Your task to perform on an android device: clear all cookies in the chrome app Image 0: 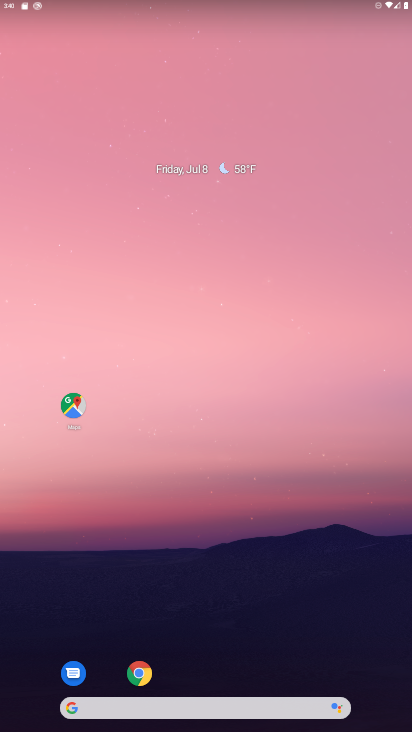
Step 0: click (138, 676)
Your task to perform on an android device: clear all cookies in the chrome app Image 1: 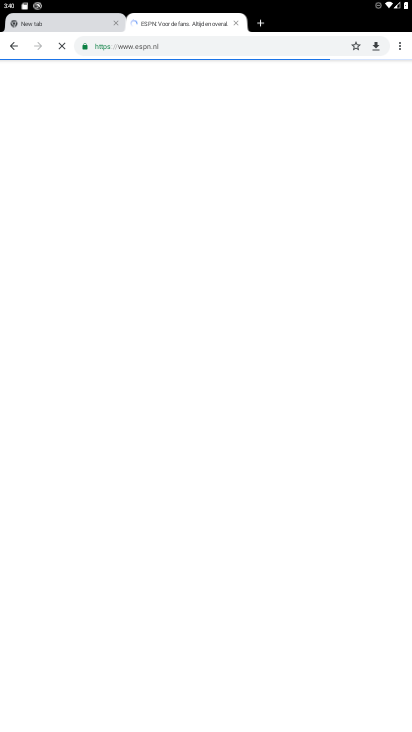
Step 1: click (399, 49)
Your task to perform on an android device: clear all cookies in the chrome app Image 2: 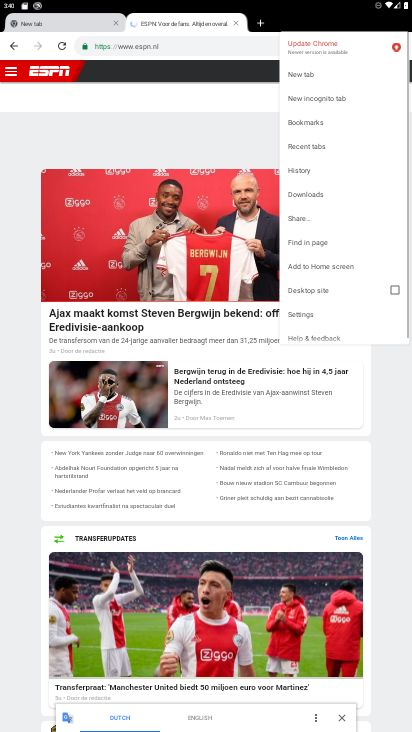
Step 2: click (302, 167)
Your task to perform on an android device: clear all cookies in the chrome app Image 3: 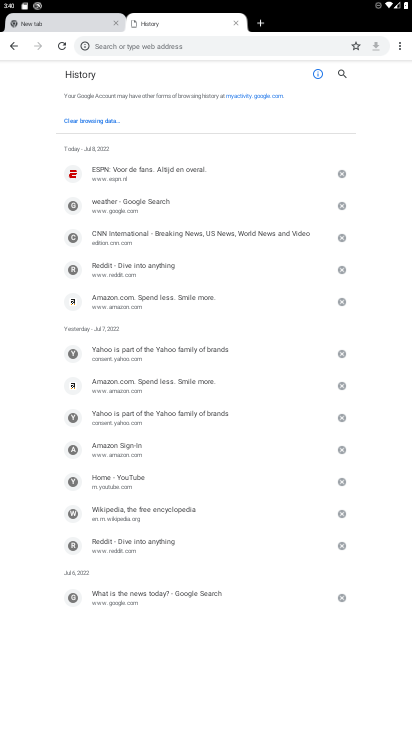
Step 3: click (100, 122)
Your task to perform on an android device: clear all cookies in the chrome app Image 4: 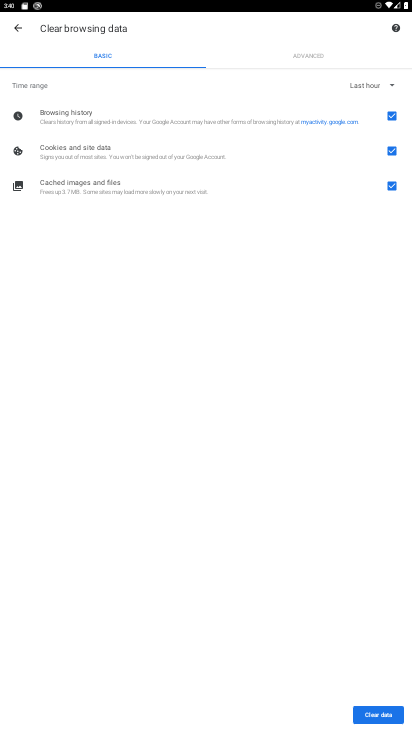
Step 4: click (372, 712)
Your task to perform on an android device: clear all cookies in the chrome app Image 5: 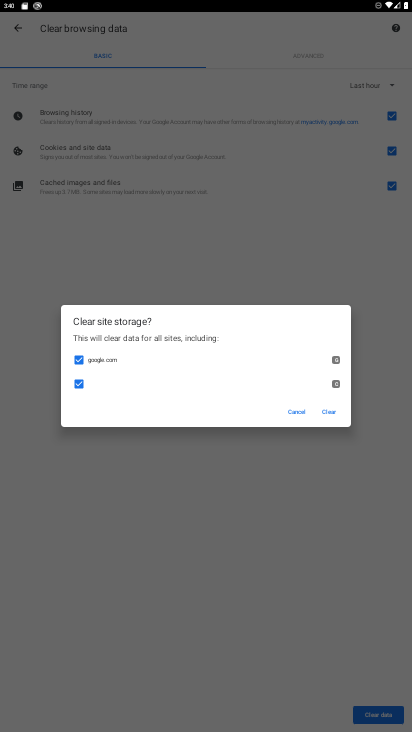
Step 5: click (330, 410)
Your task to perform on an android device: clear all cookies in the chrome app Image 6: 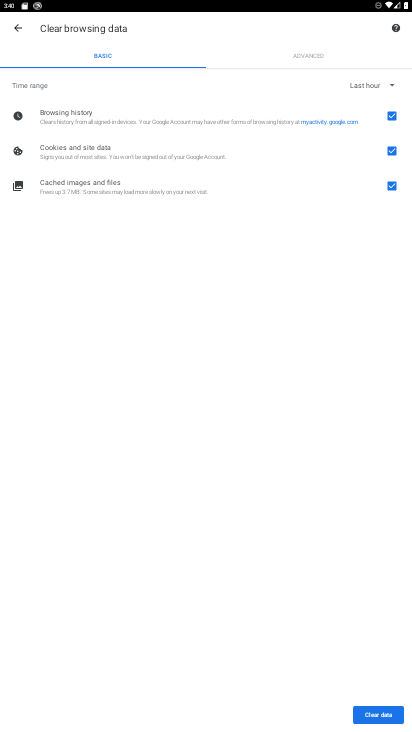
Step 6: task complete